Your task to perform on an android device: Search for macbook pro on bestbuy.com, select the first entry, add it to the cart, then select checkout. Image 0: 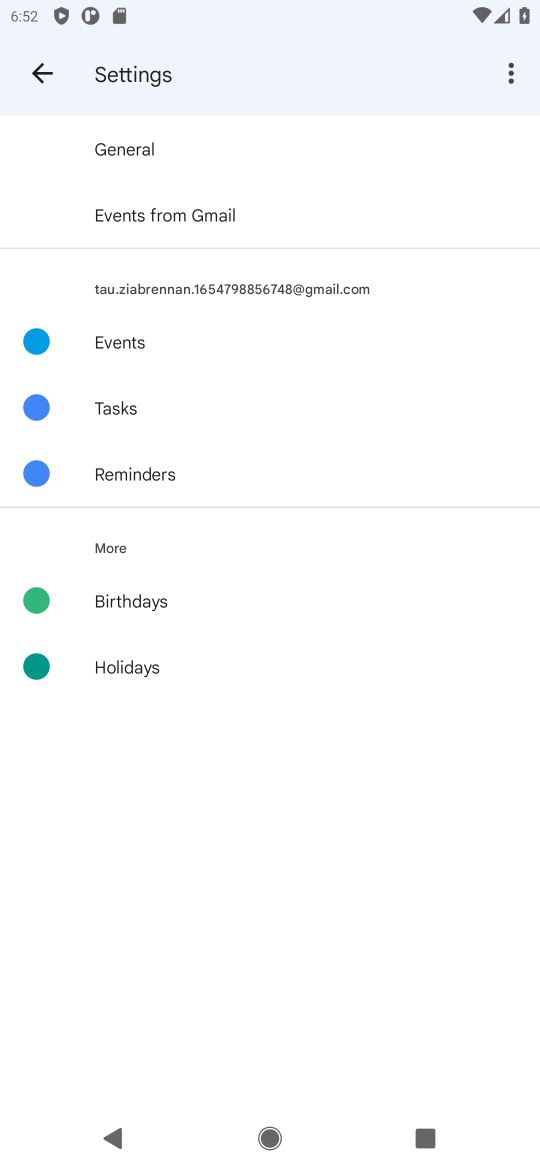
Step 0: click (37, 69)
Your task to perform on an android device: Search for macbook pro on bestbuy.com, select the first entry, add it to the cart, then select checkout. Image 1: 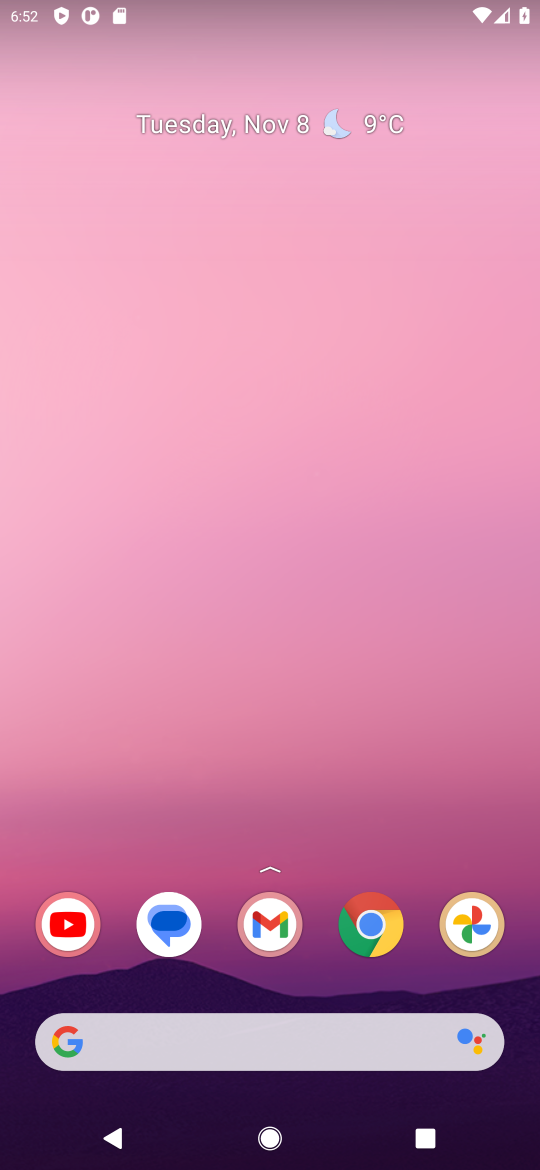
Step 1: click (259, 1037)
Your task to perform on an android device: Search for macbook pro on bestbuy.com, select the first entry, add it to the cart, then select checkout. Image 2: 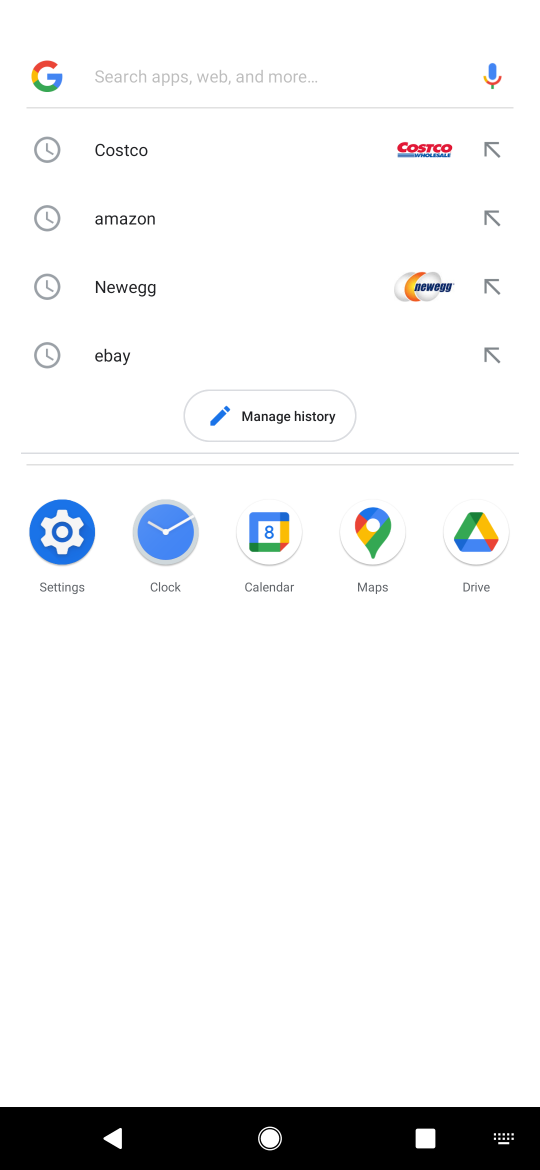
Step 2: type "bestbuy.com"
Your task to perform on an android device: Search for macbook pro on bestbuy.com, select the first entry, add it to the cart, then select checkout. Image 3: 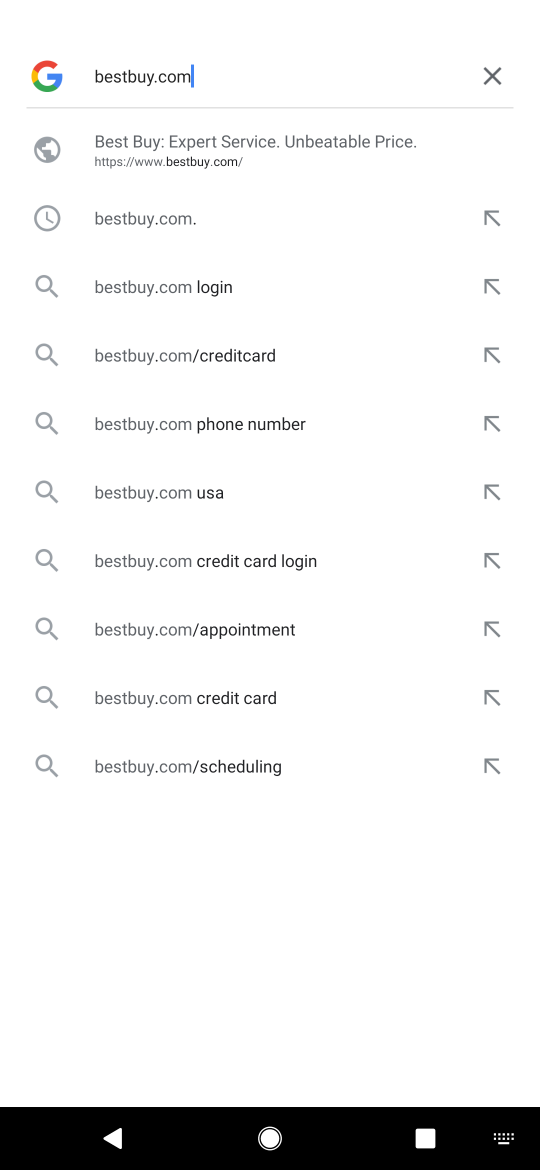
Step 3: click (189, 158)
Your task to perform on an android device: Search for macbook pro on bestbuy.com, select the first entry, add it to the cart, then select checkout. Image 4: 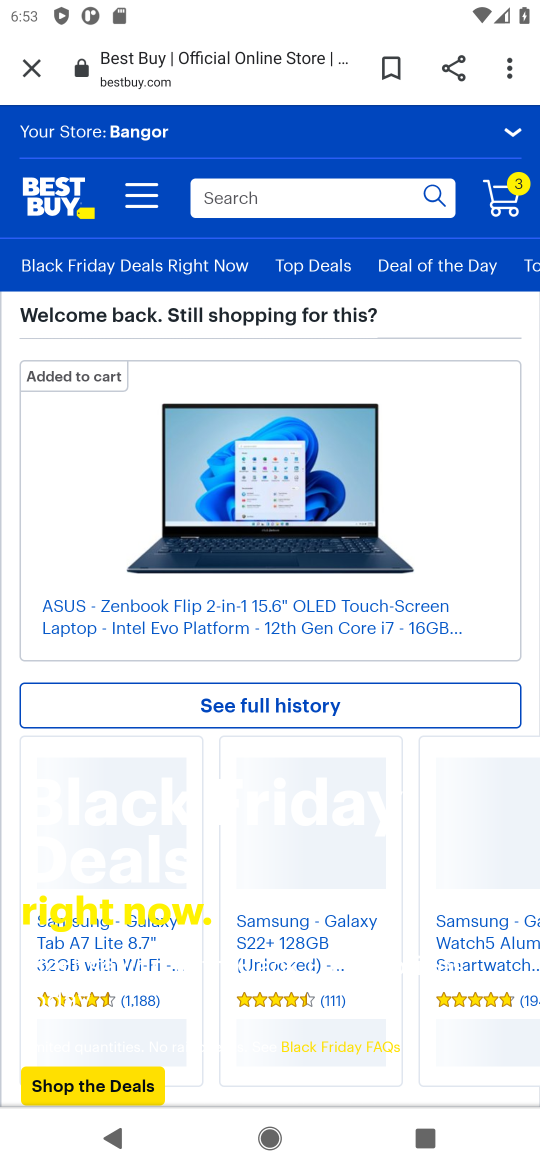
Step 4: click (335, 198)
Your task to perform on an android device: Search for macbook pro on bestbuy.com, select the first entry, add it to the cart, then select checkout. Image 5: 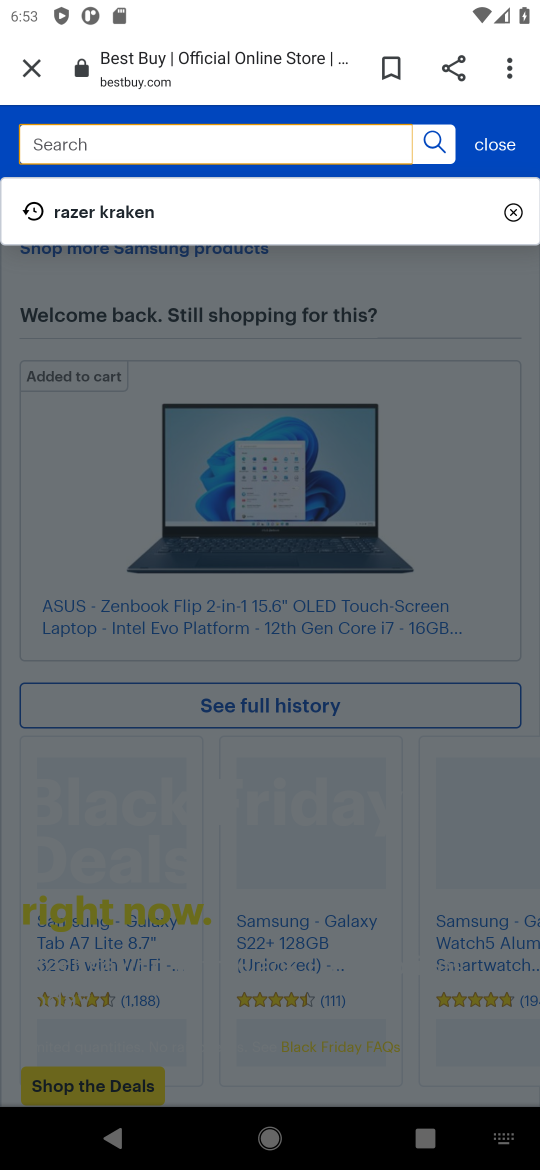
Step 5: type "macbook pro"
Your task to perform on an android device: Search for macbook pro on bestbuy.com, select the first entry, add it to the cart, then select checkout. Image 6: 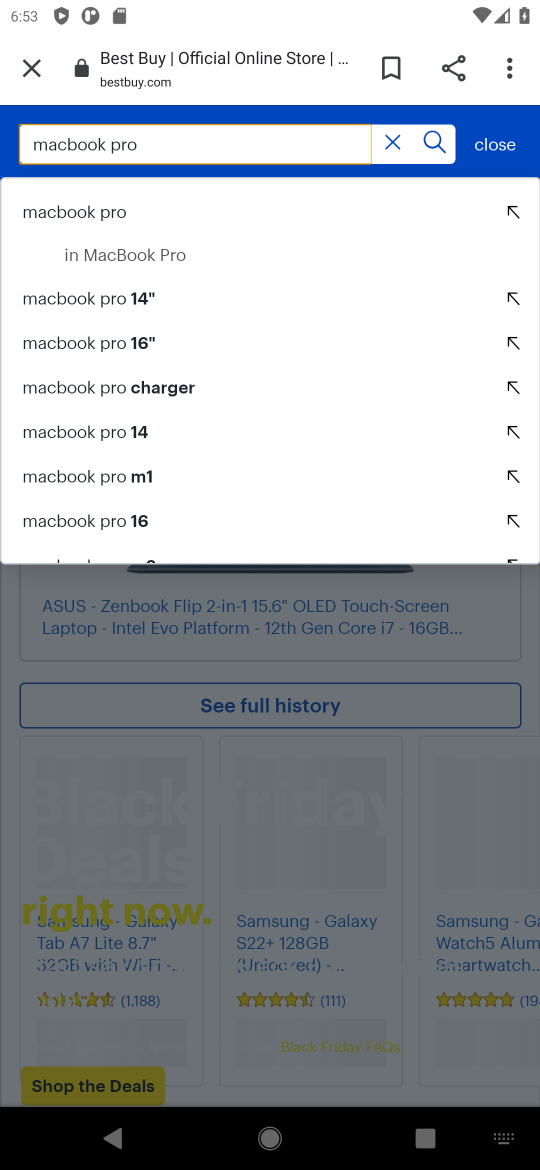
Step 6: click (431, 156)
Your task to perform on an android device: Search for macbook pro on bestbuy.com, select the first entry, add it to the cart, then select checkout. Image 7: 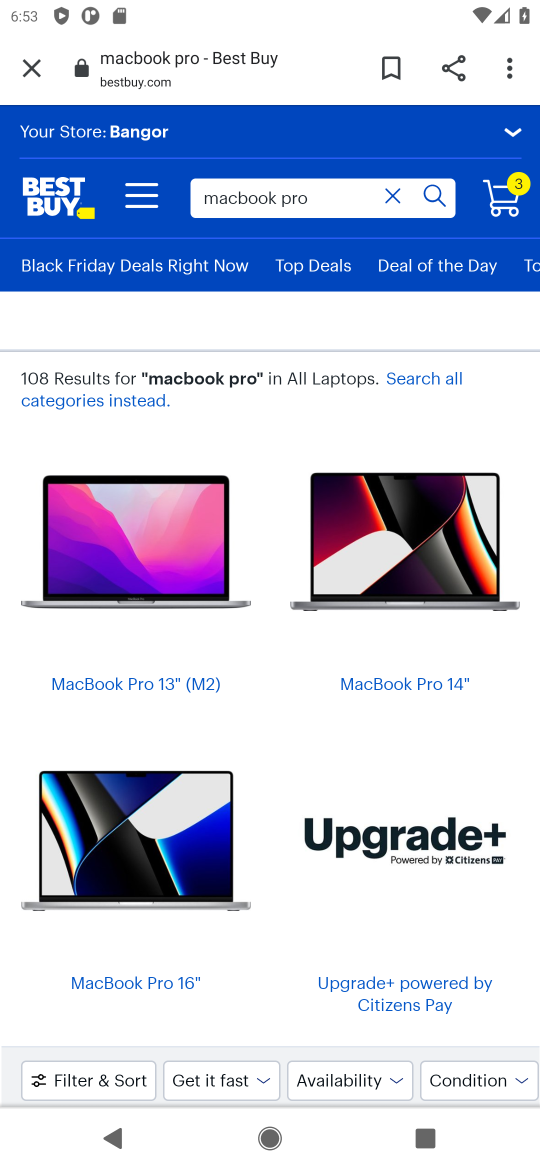
Step 7: click (112, 603)
Your task to perform on an android device: Search for macbook pro on bestbuy.com, select the first entry, add it to the cart, then select checkout. Image 8: 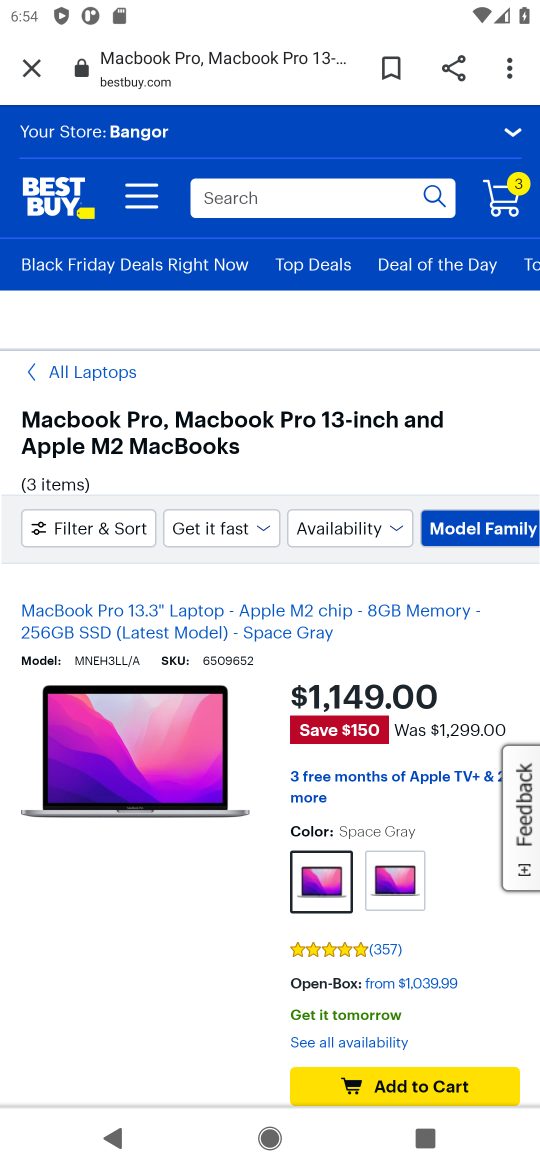
Step 8: click (412, 1087)
Your task to perform on an android device: Search for macbook pro on bestbuy.com, select the first entry, add it to the cart, then select checkout. Image 9: 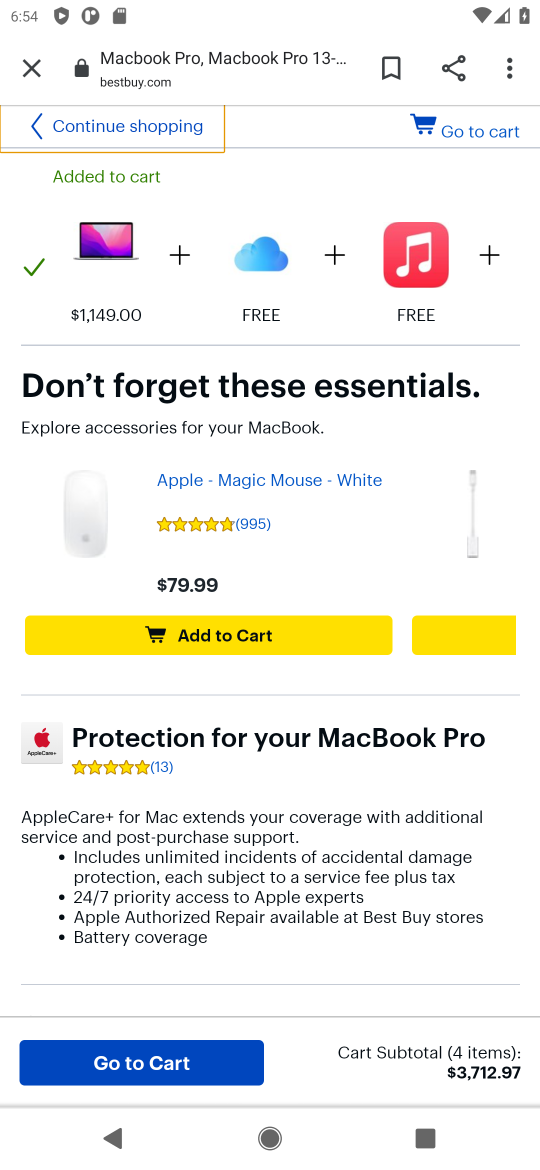
Step 9: click (133, 1055)
Your task to perform on an android device: Search for macbook pro on bestbuy.com, select the first entry, add it to the cart, then select checkout. Image 10: 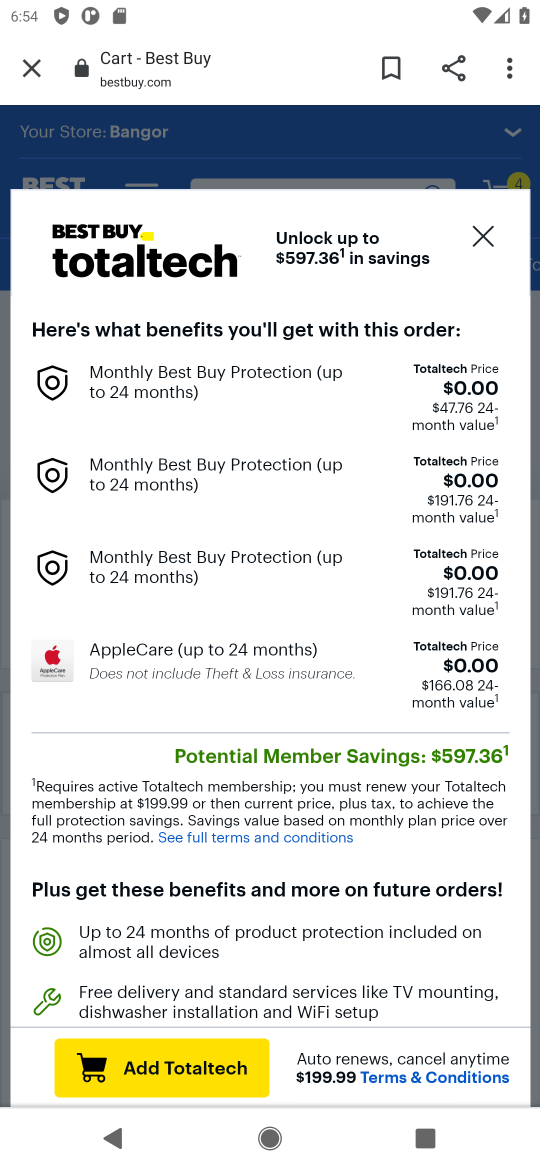
Step 10: click (481, 232)
Your task to perform on an android device: Search for macbook pro on bestbuy.com, select the first entry, add it to the cart, then select checkout. Image 11: 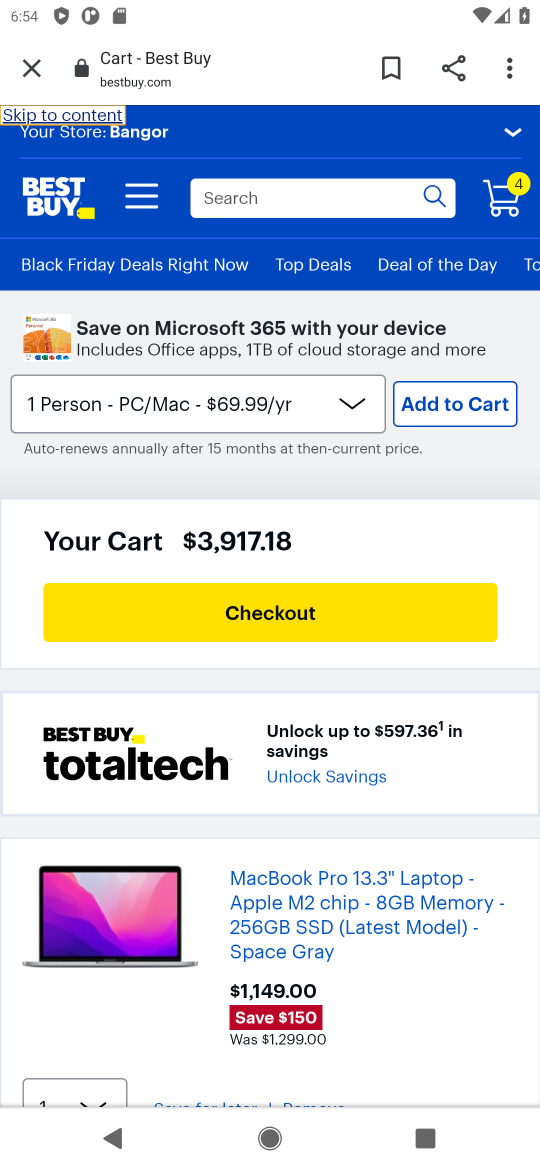
Step 11: click (262, 620)
Your task to perform on an android device: Search for macbook pro on bestbuy.com, select the first entry, add it to the cart, then select checkout. Image 12: 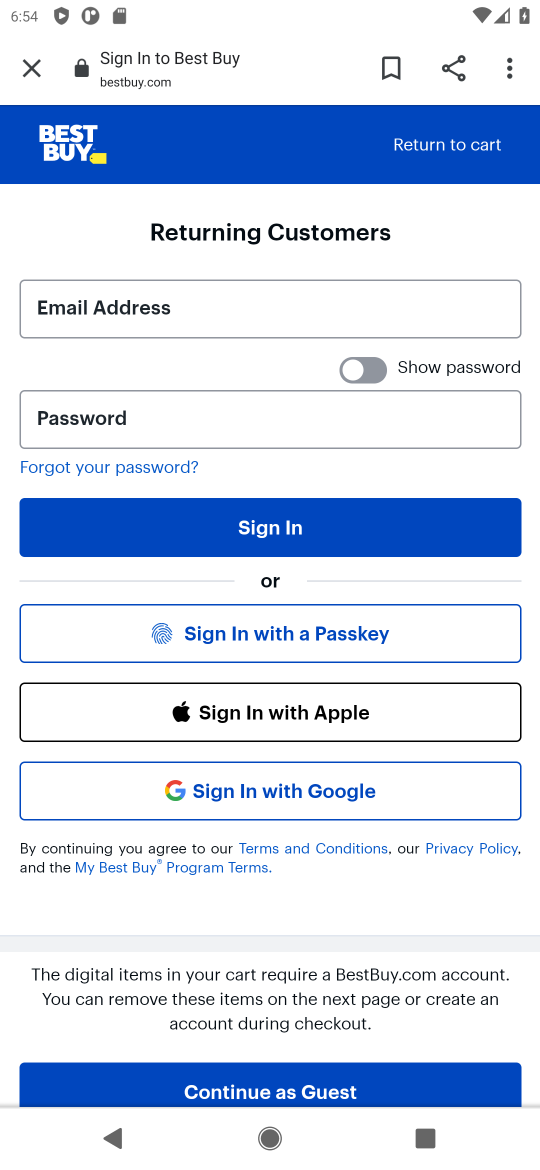
Step 12: task complete